Your task to perform on an android device: Open Google Chrome and open the bookmarks view Image 0: 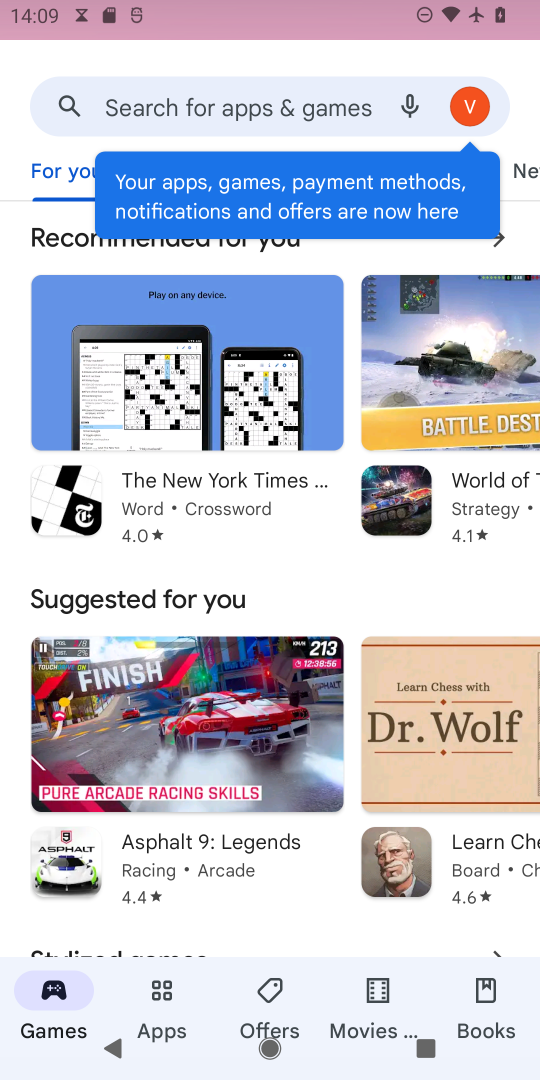
Step 0: press home button
Your task to perform on an android device: Open Google Chrome and open the bookmarks view Image 1: 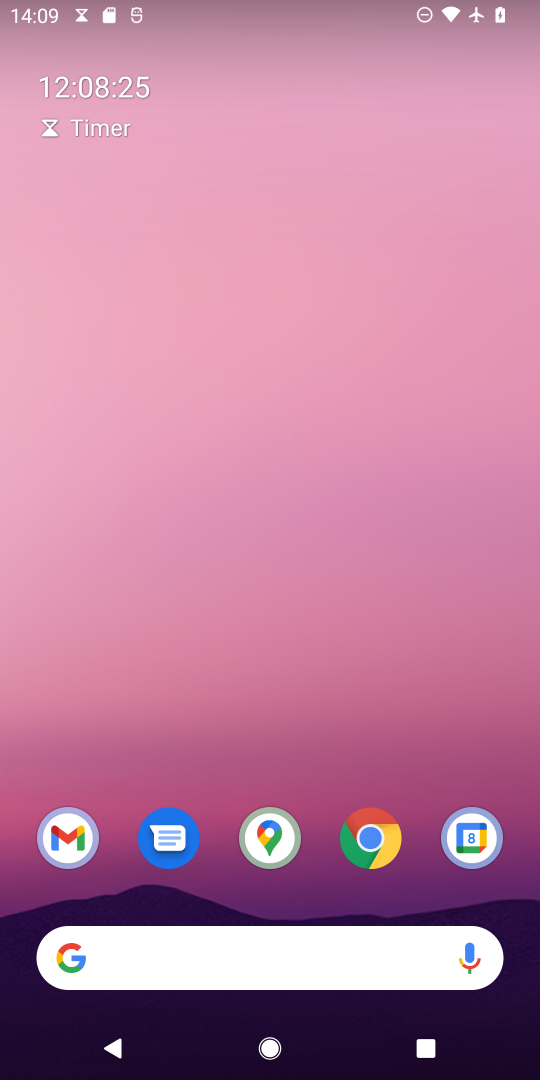
Step 1: click (354, 853)
Your task to perform on an android device: Open Google Chrome and open the bookmarks view Image 2: 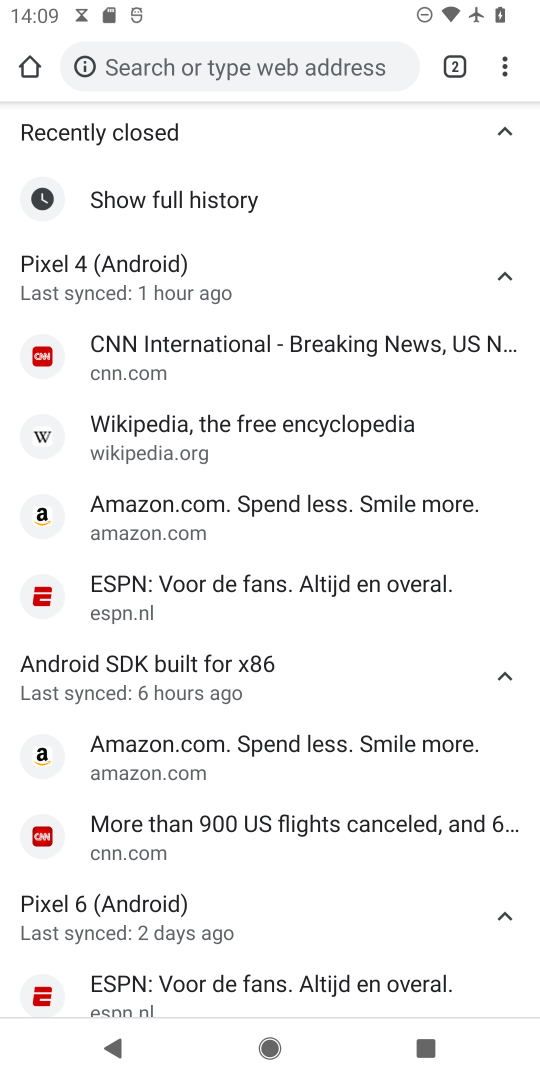
Step 2: task complete